Your task to perform on an android device: change the clock display to analog Image 0: 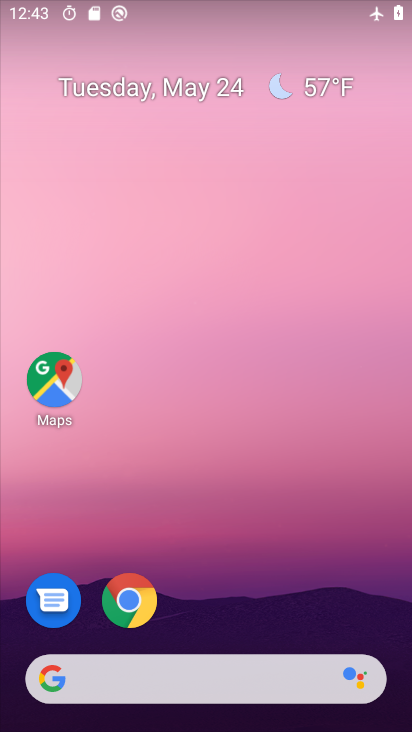
Step 0: drag from (289, 578) to (303, 61)
Your task to perform on an android device: change the clock display to analog Image 1: 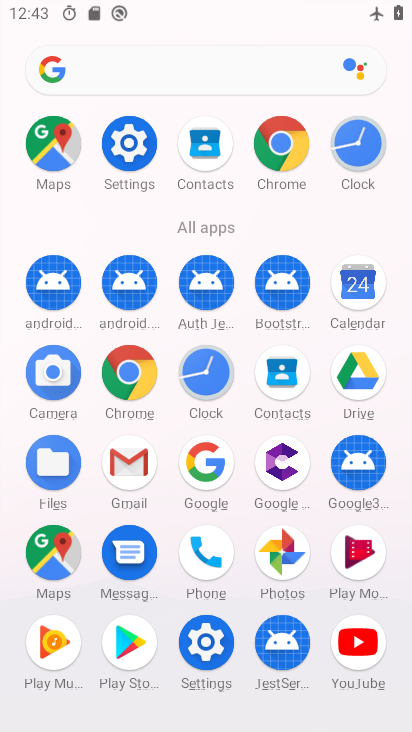
Step 1: click (342, 149)
Your task to perform on an android device: change the clock display to analog Image 2: 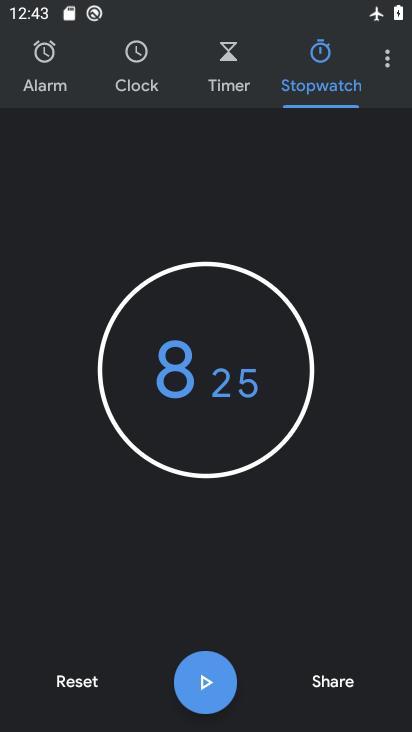
Step 2: click (381, 61)
Your task to perform on an android device: change the clock display to analog Image 3: 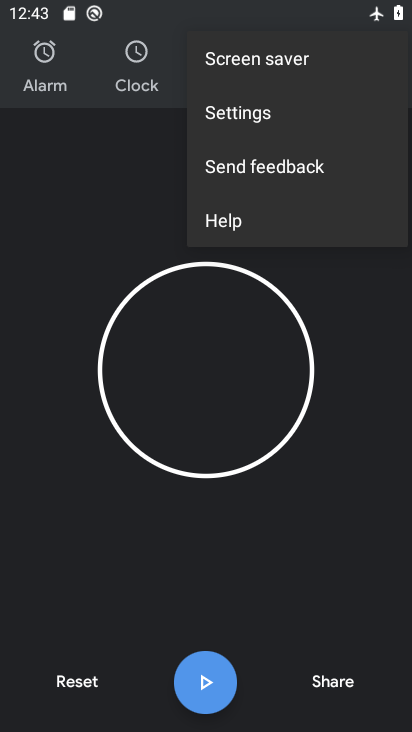
Step 3: click (222, 112)
Your task to perform on an android device: change the clock display to analog Image 4: 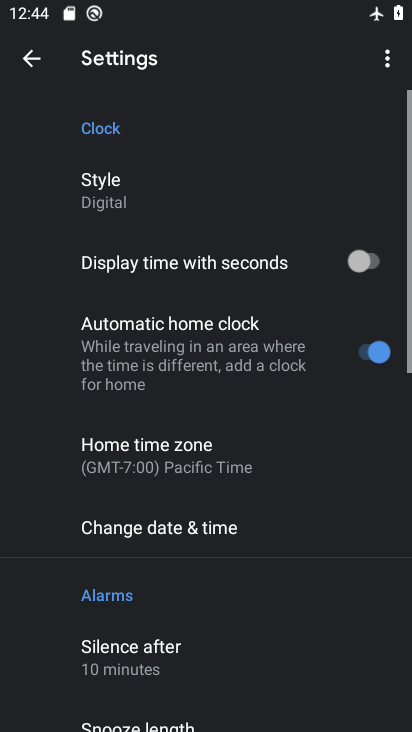
Step 4: click (123, 193)
Your task to perform on an android device: change the clock display to analog Image 5: 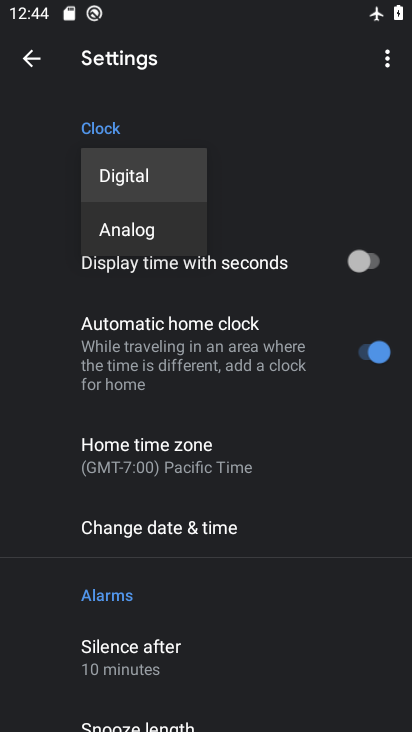
Step 5: click (127, 219)
Your task to perform on an android device: change the clock display to analog Image 6: 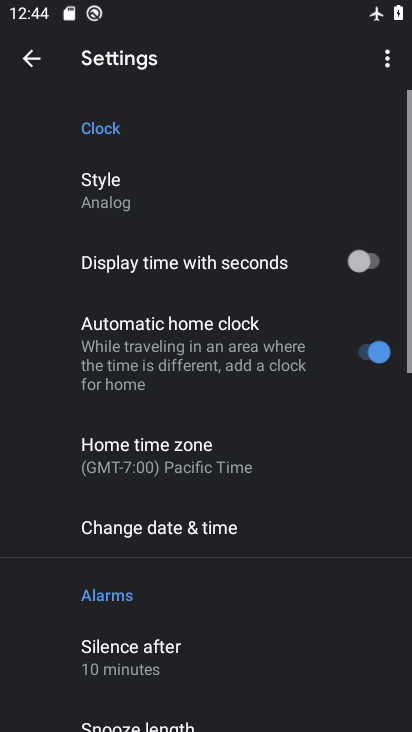
Step 6: task complete